Your task to perform on an android device: Go to Yahoo.com Image 0: 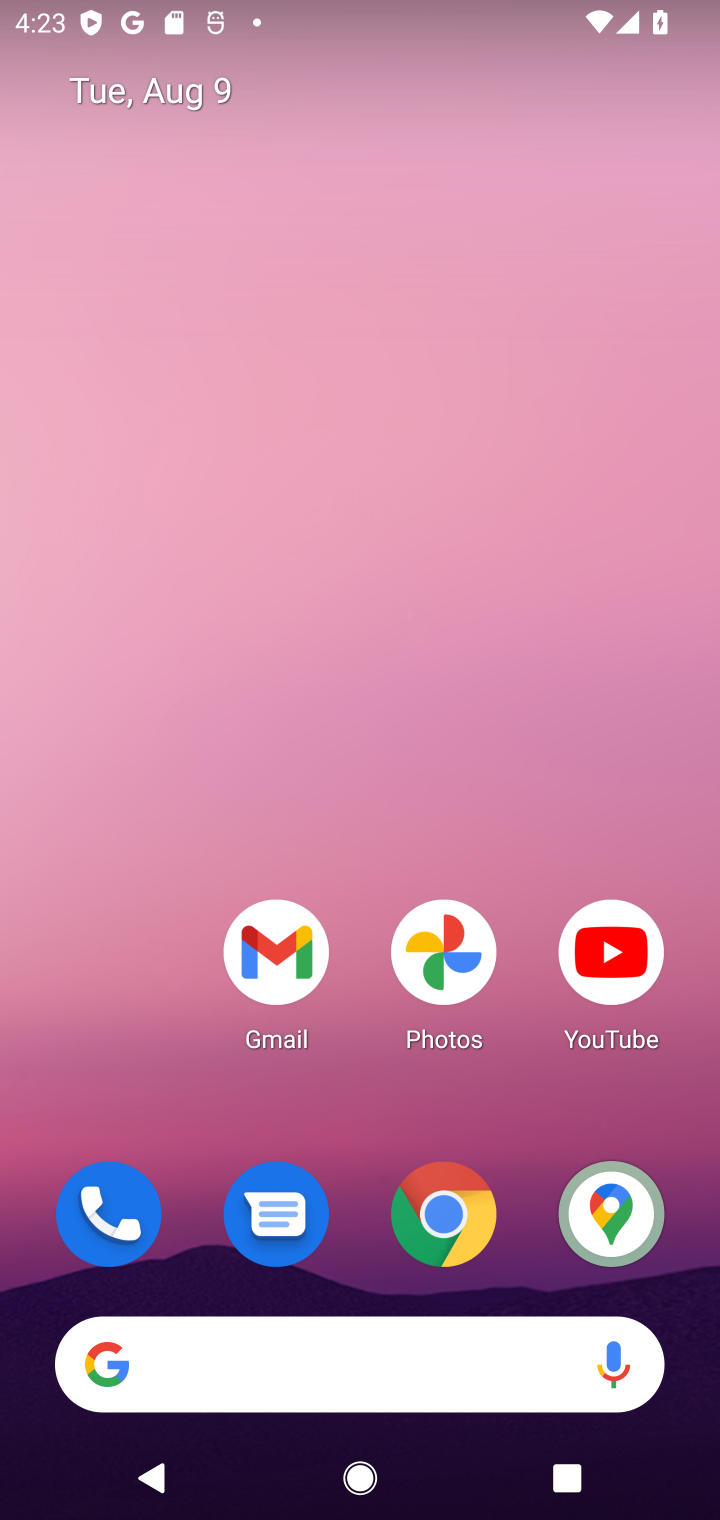
Step 0: click (411, 1224)
Your task to perform on an android device: Go to Yahoo.com Image 1: 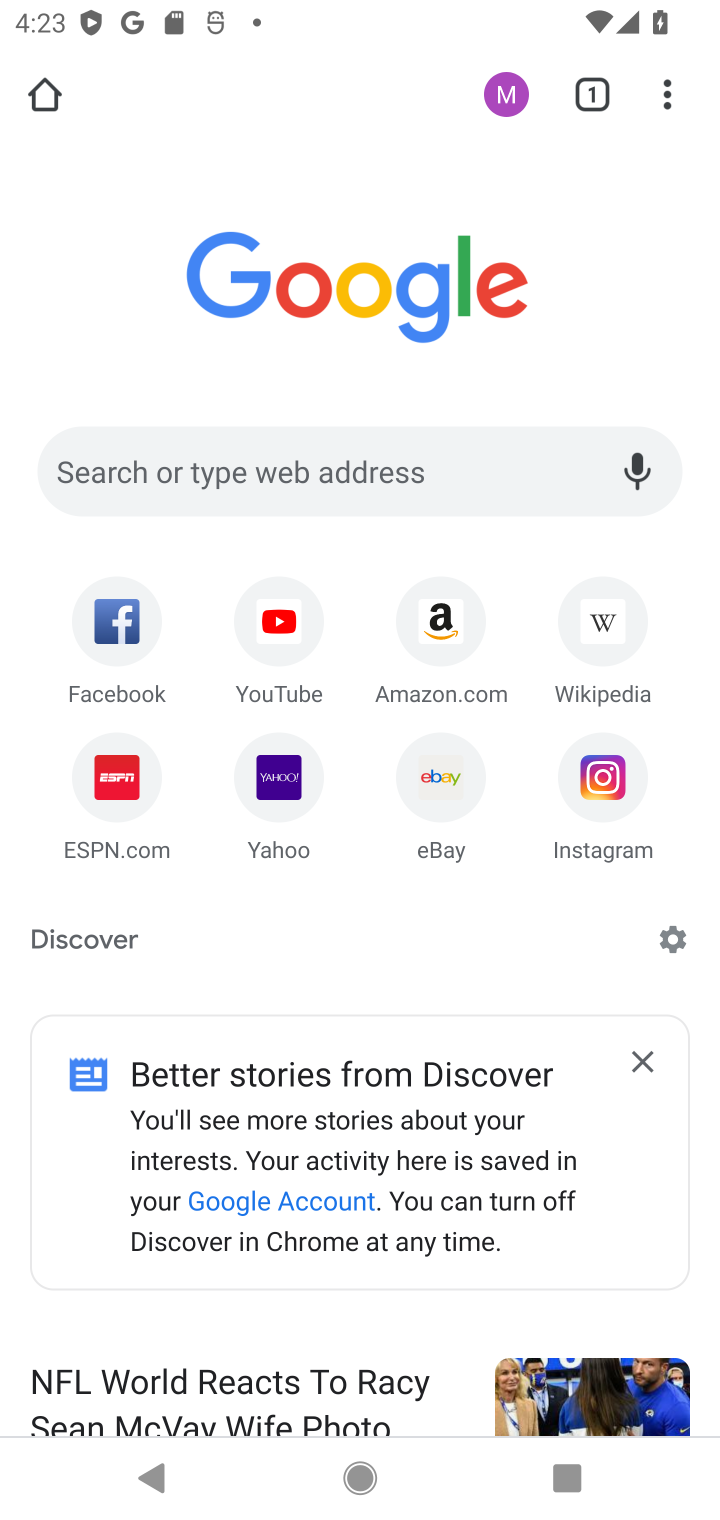
Step 1: click (268, 780)
Your task to perform on an android device: Go to Yahoo.com Image 2: 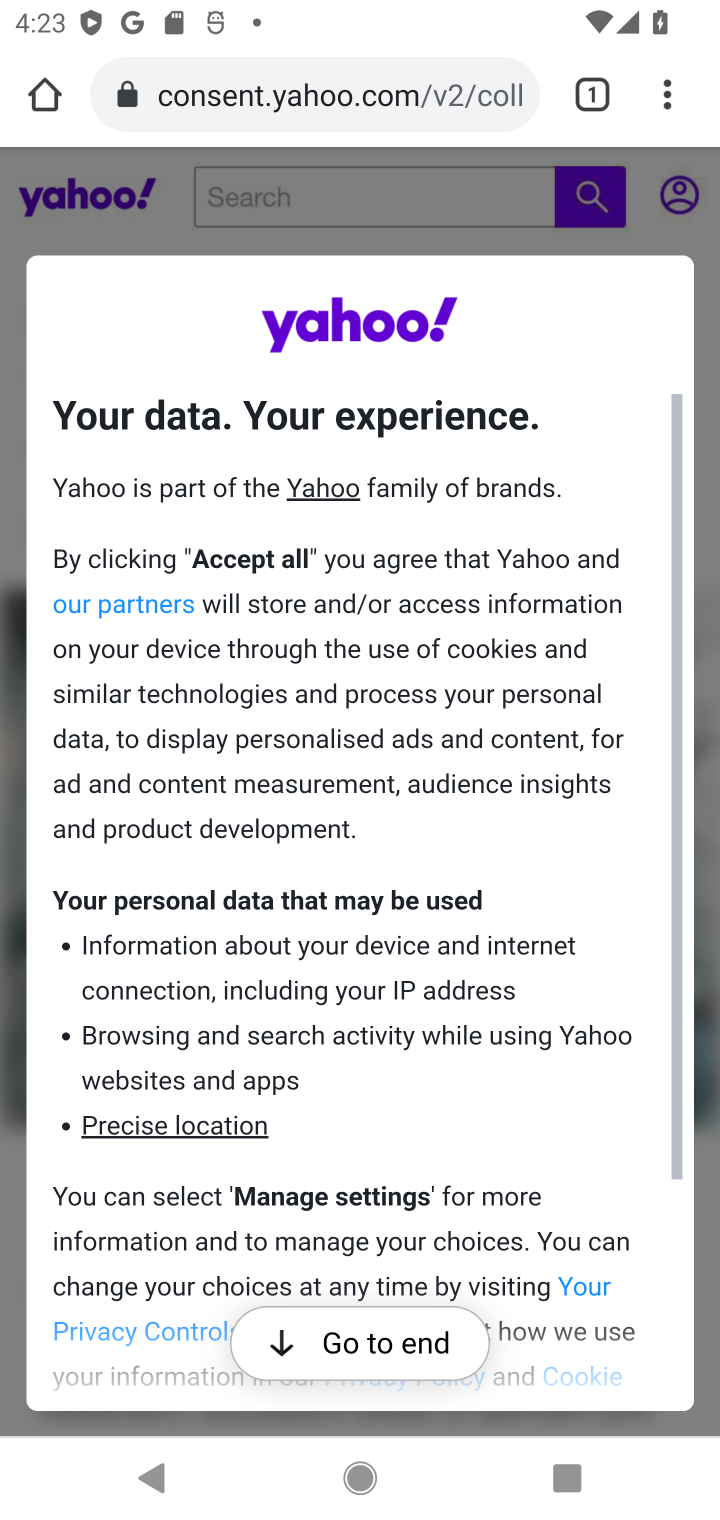
Step 2: drag from (452, 1157) to (392, 851)
Your task to perform on an android device: Go to Yahoo.com Image 3: 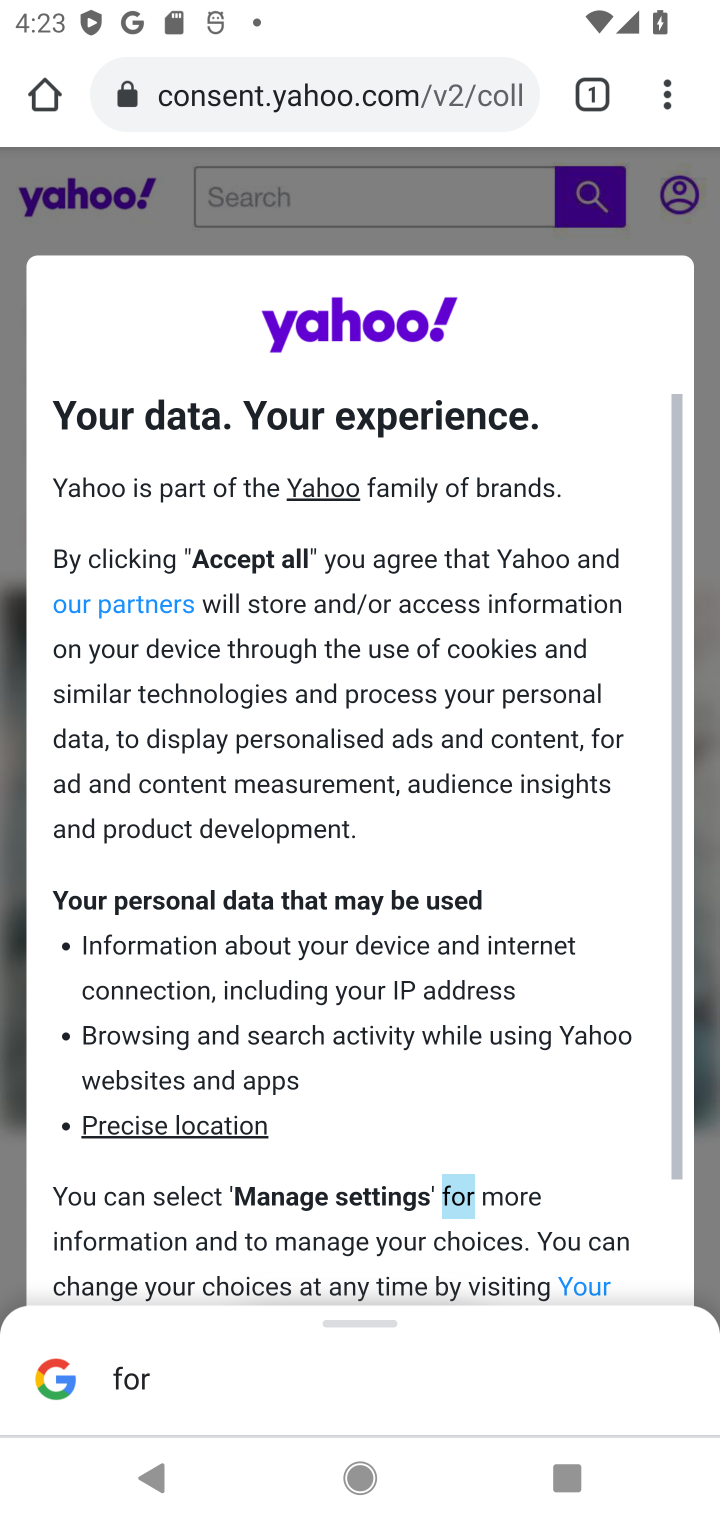
Step 3: drag from (480, 1173) to (405, 661)
Your task to perform on an android device: Go to Yahoo.com Image 4: 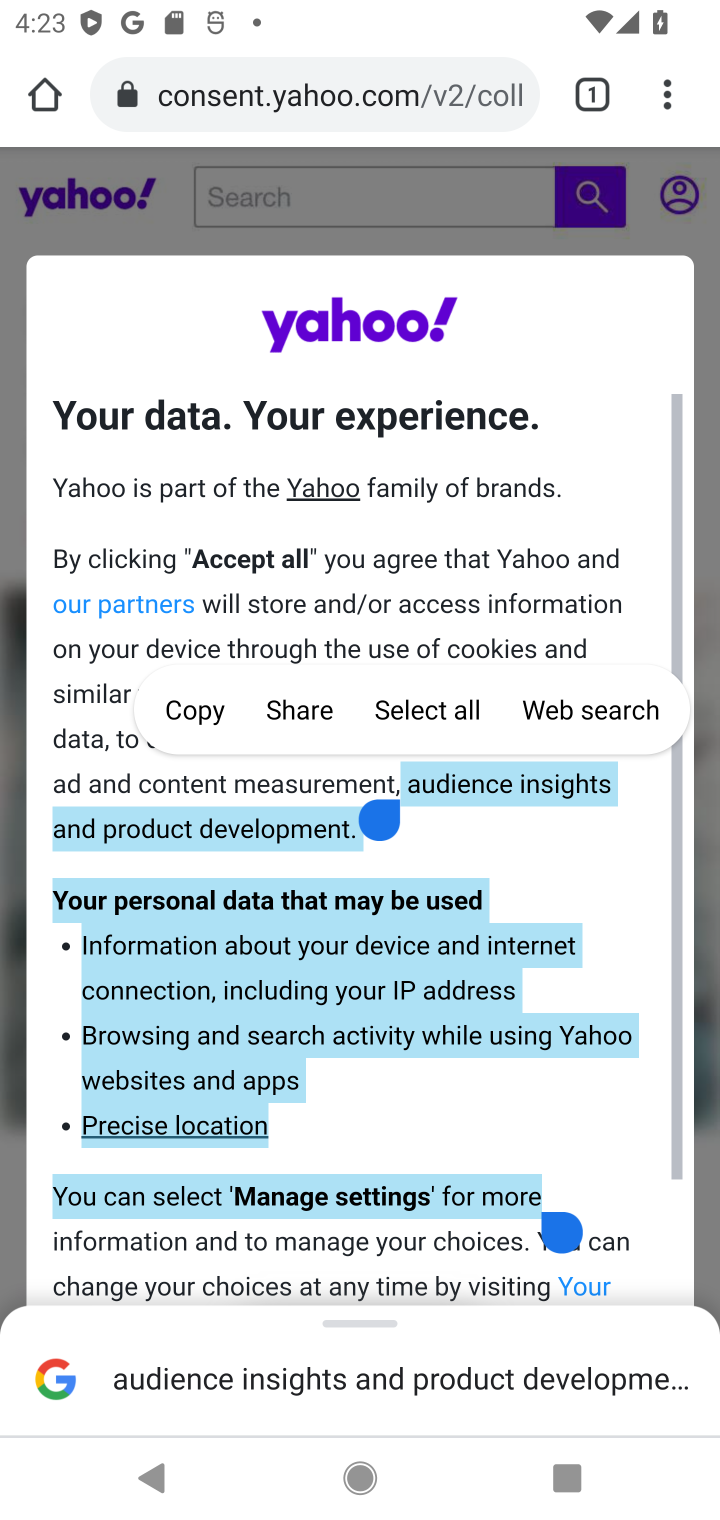
Step 4: drag from (350, 630) to (343, 415)
Your task to perform on an android device: Go to Yahoo.com Image 5: 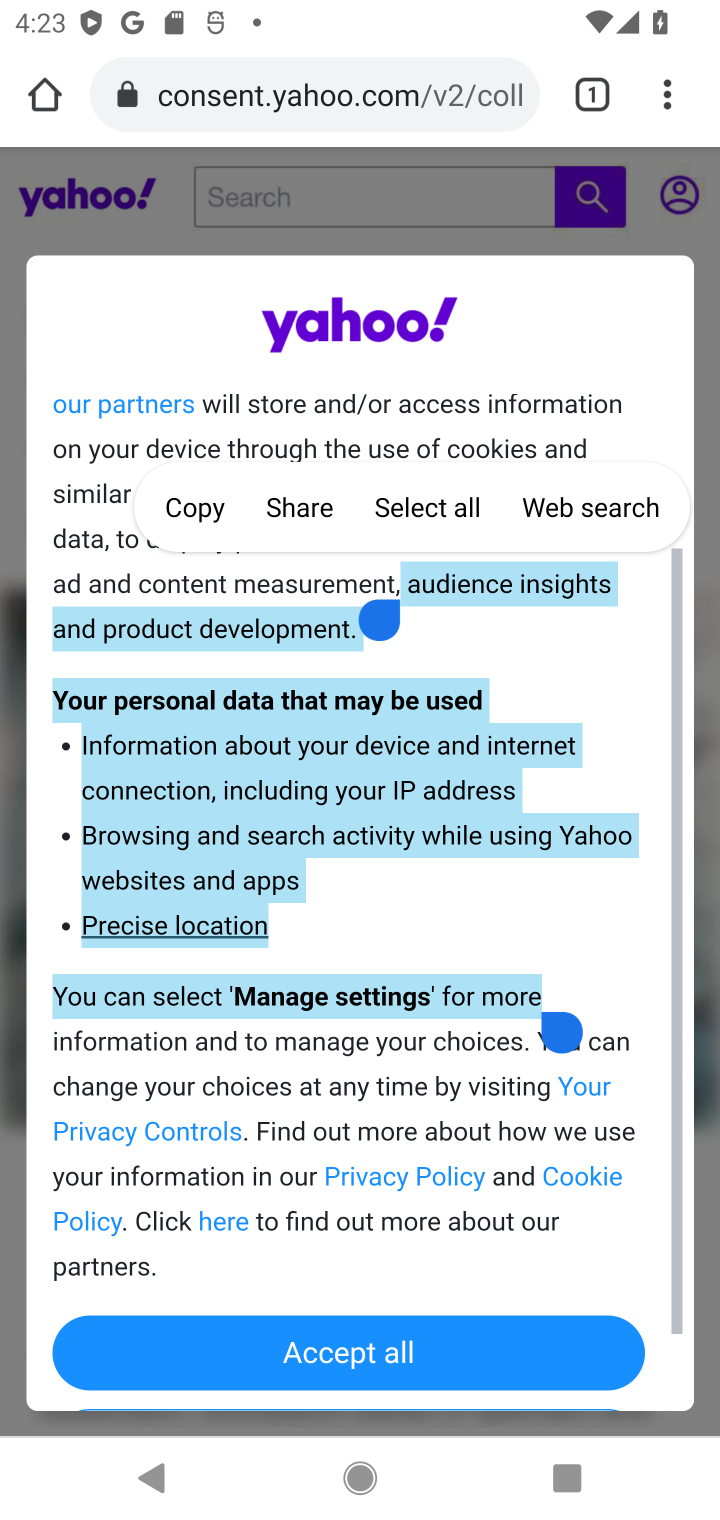
Step 5: click (476, 1355)
Your task to perform on an android device: Go to Yahoo.com Image 6: 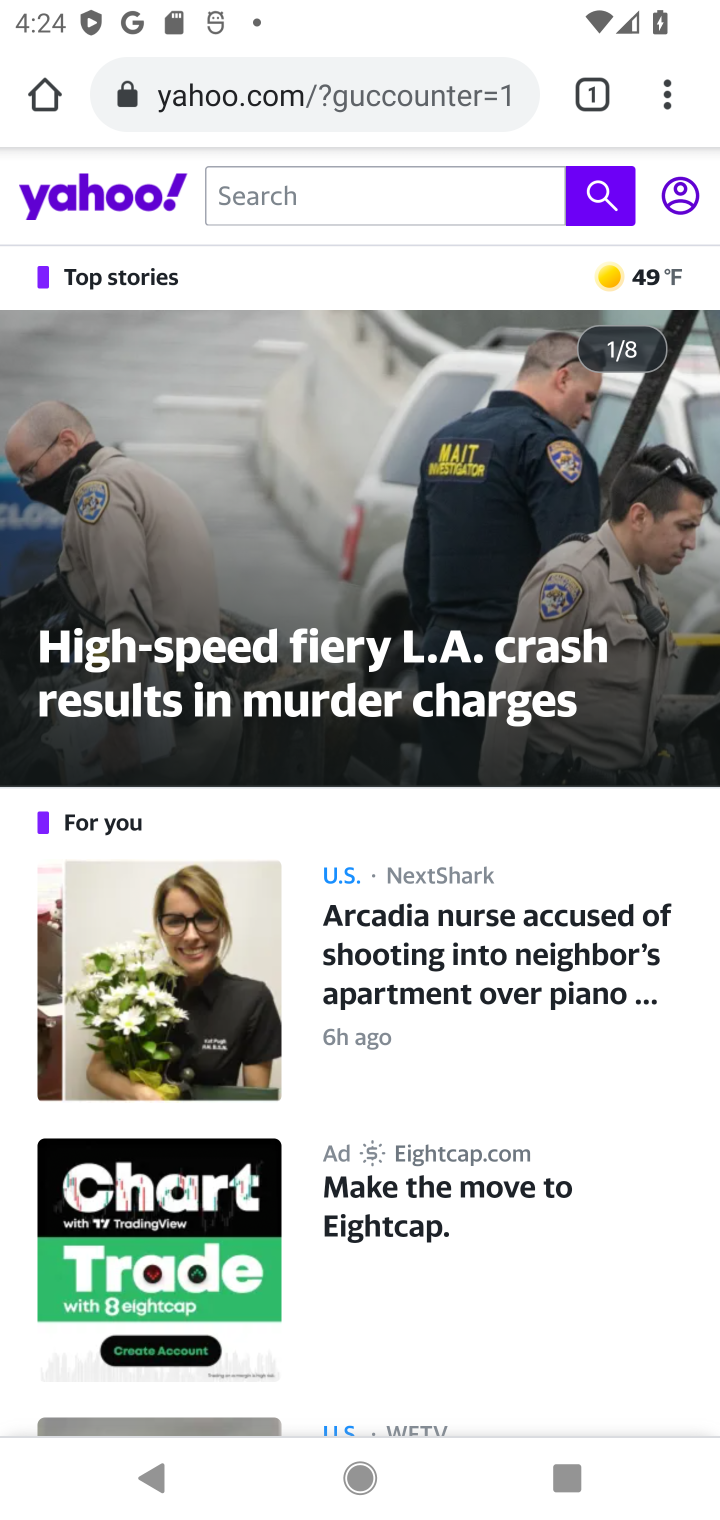
Step 6: task complete